Your task to perform on an android device: Check the weather Image 0: 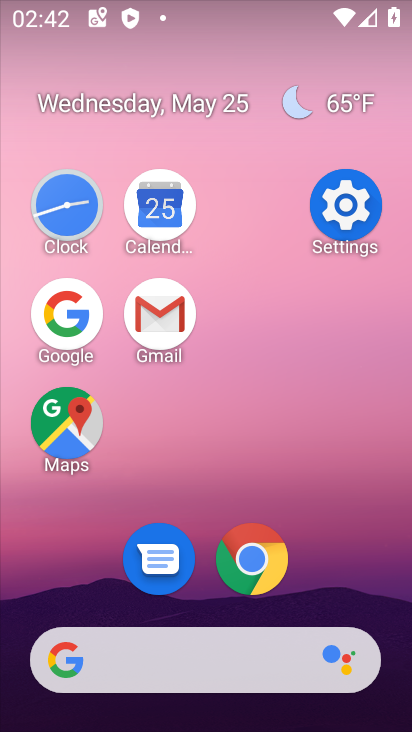
Step 0: click (85, 311)
Your task to perform on an android device: Check the weather Image 1: 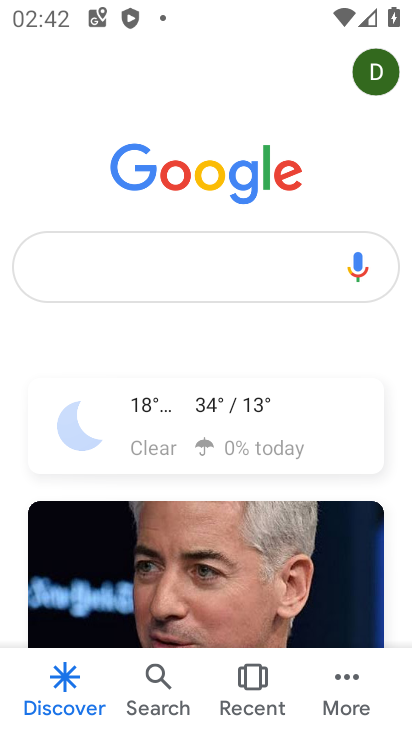
Step 1: click (206, 405)
Your task to perform on an android device: Check the weather Image 2: 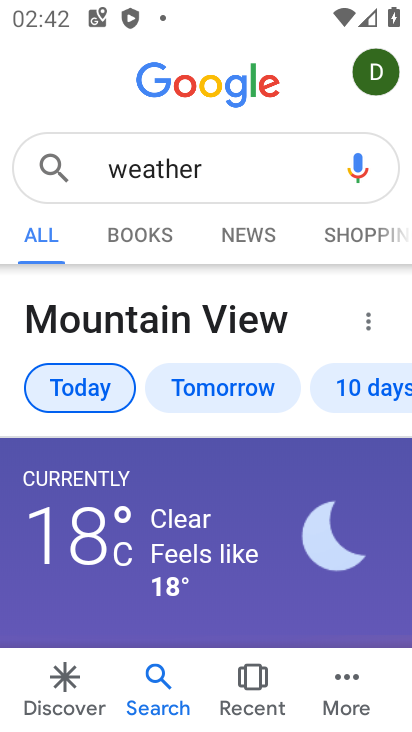
Step 2: task complete